Your task to perform on an android device: check android version Image 0: 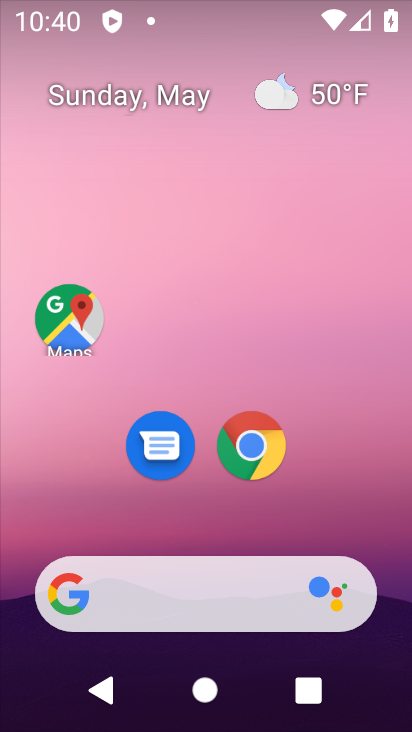
Step 0: drag from (225, 554) to (318, 48)
Your task to perform on an android device: check android version Image 1: 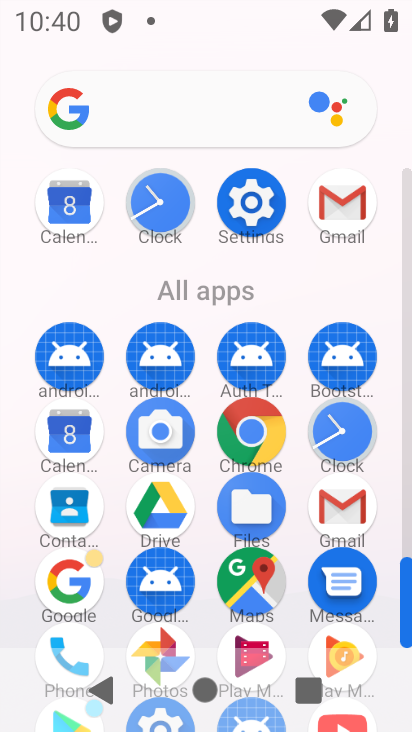
Step 1: click (261, 195)
Your task to perform on an android device: check android version Image 2: 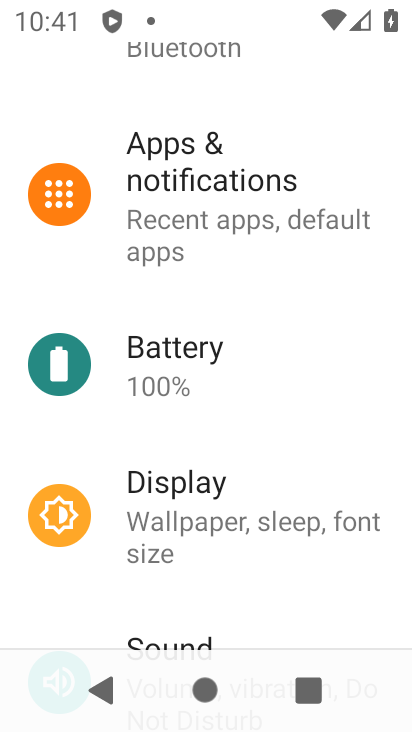
Step 2: drag from (224, 504) to (319, 103)
Your task to perform on an android device: check android version Image 3: 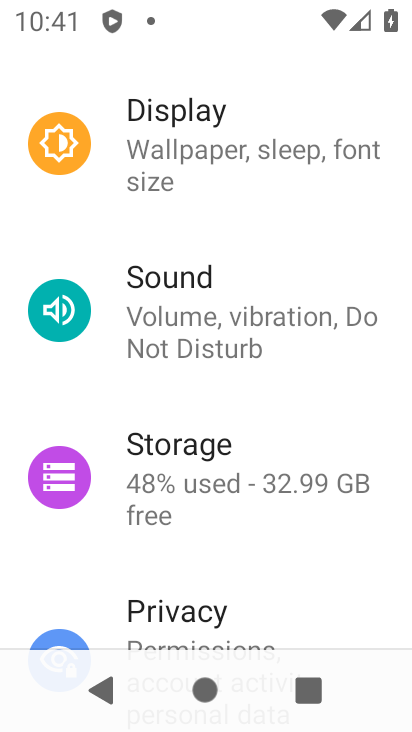
Step 3: drag from (267, 593) to (266, 127)
Your task to perform on an android device: check android version Image 4: 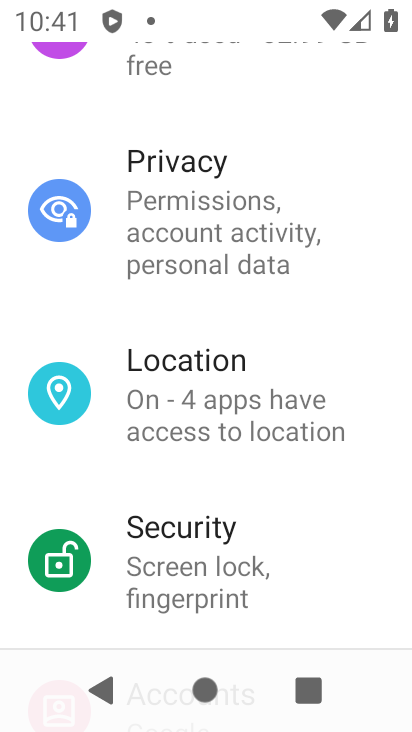
Step 4: drag from (185, 543) to (239, 84)
Your task to perform on an android device: check android version Image 5: 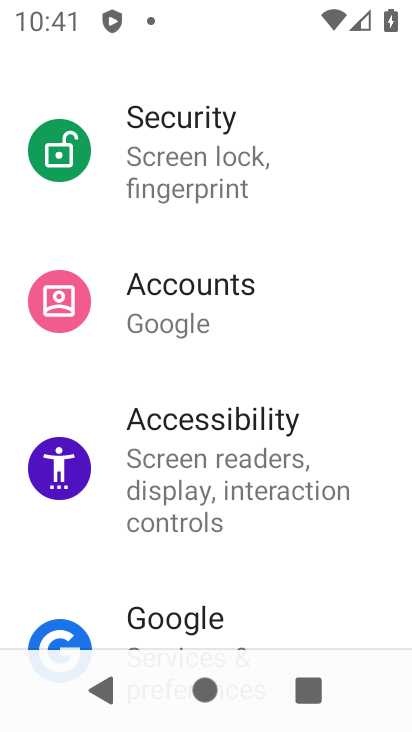
Step 5: drag from (228, 545) to (254, 126)
Your task to perform on an android device: check android version Image 6: 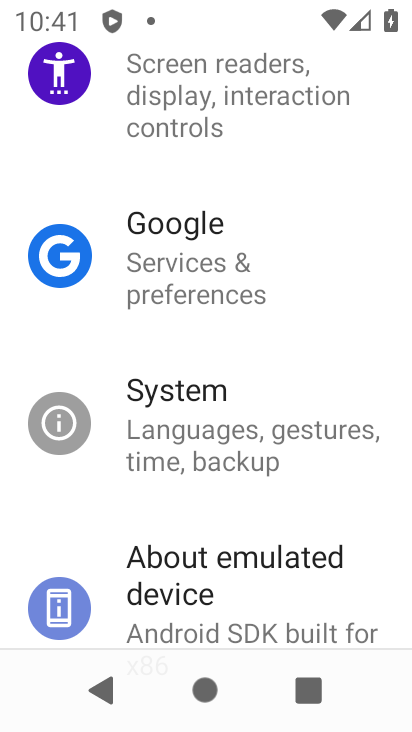
Step 6: drag from (249, 575) to (281, 355)
Your task to perform on an android device: check android version Image 7: 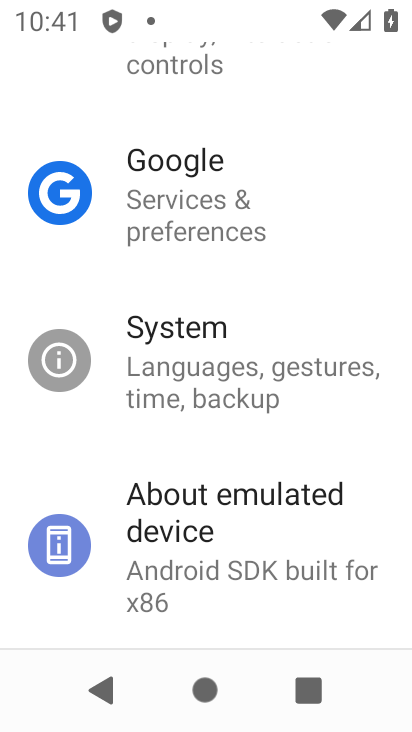
Step 7: click (213, 514)
Your task to perform on an android device: check android version Image 8: 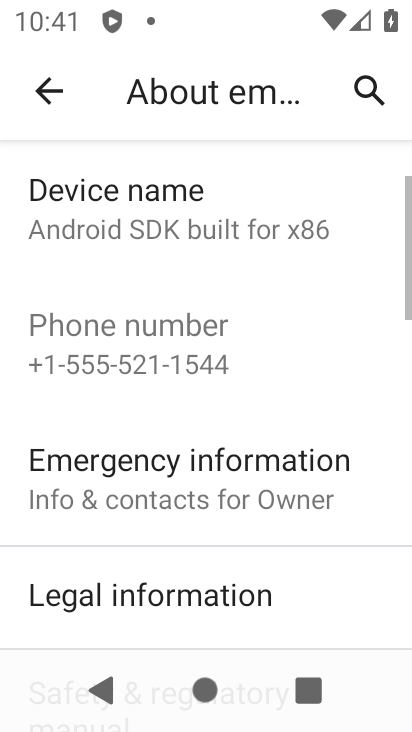
Step 8: drag from (224, 565) to (254, 352)
Your task to perform on an android device: check android version Image 9: 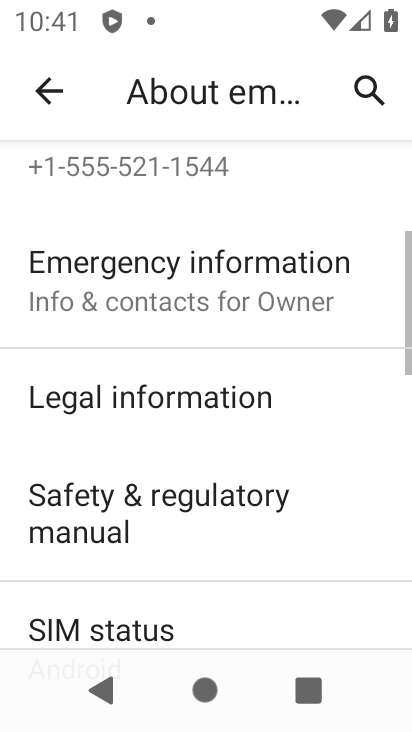
Step 9: drag from (248, 580) to (248, 336)
Your task to perform on an android device: check android version Image 10: 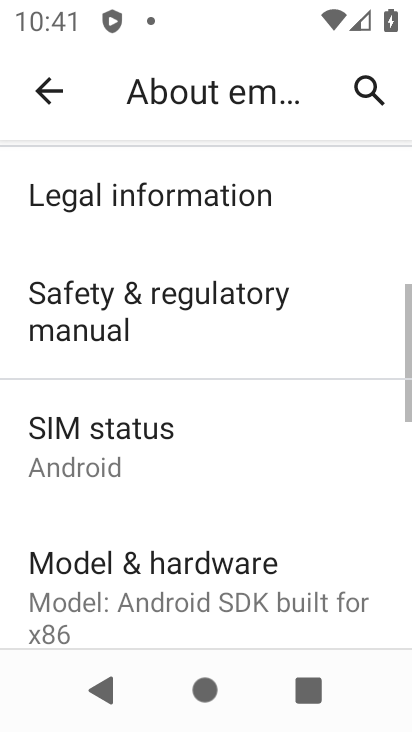
Step 10: drag from (242, 520) to (265, 233)
Your task to perform on an android device: check android version Image 11: 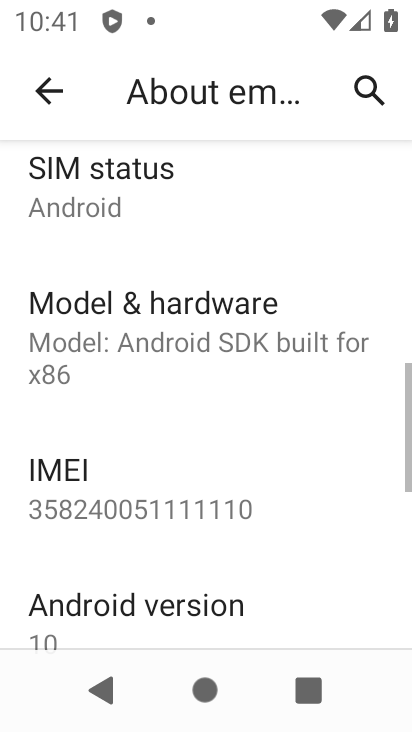
Step 11: drag from (198, 520) to (245, 251)
Your task to perform on an android device: check android version Image 12: 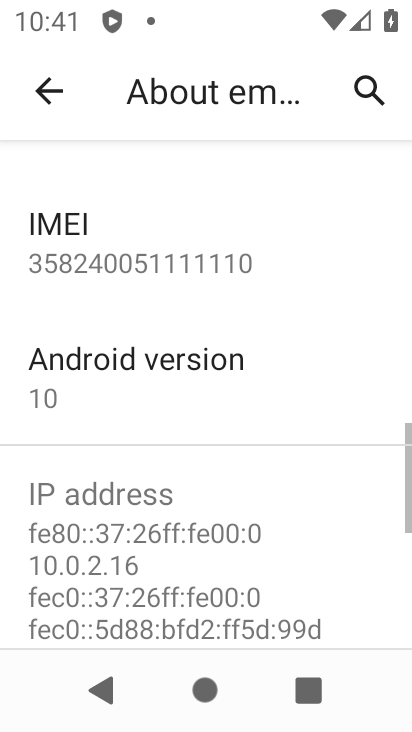
Step 12: click (202, 380)
Your task to perform on an android device: check android version Image 13: 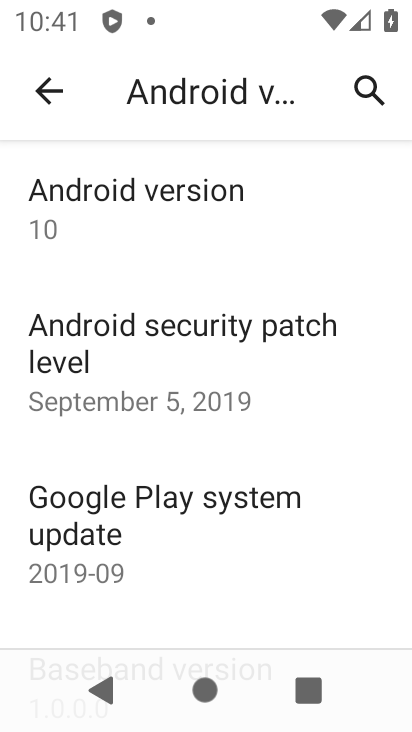
Step 13: task complete